Your task to perform on an android device: Check the news Image 0: 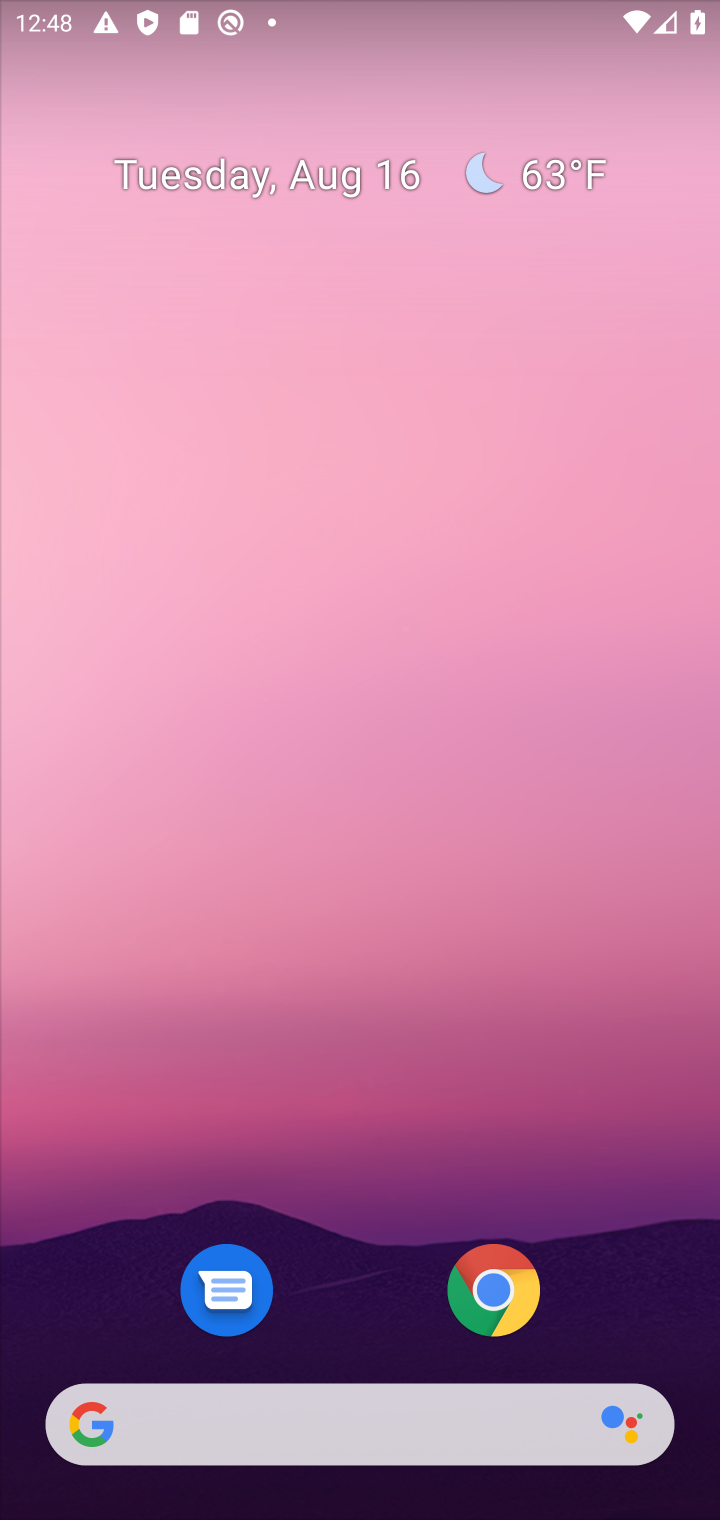
Step 0: click (269, 1438)
Your task to perform on an android device: Check the news Image 1: 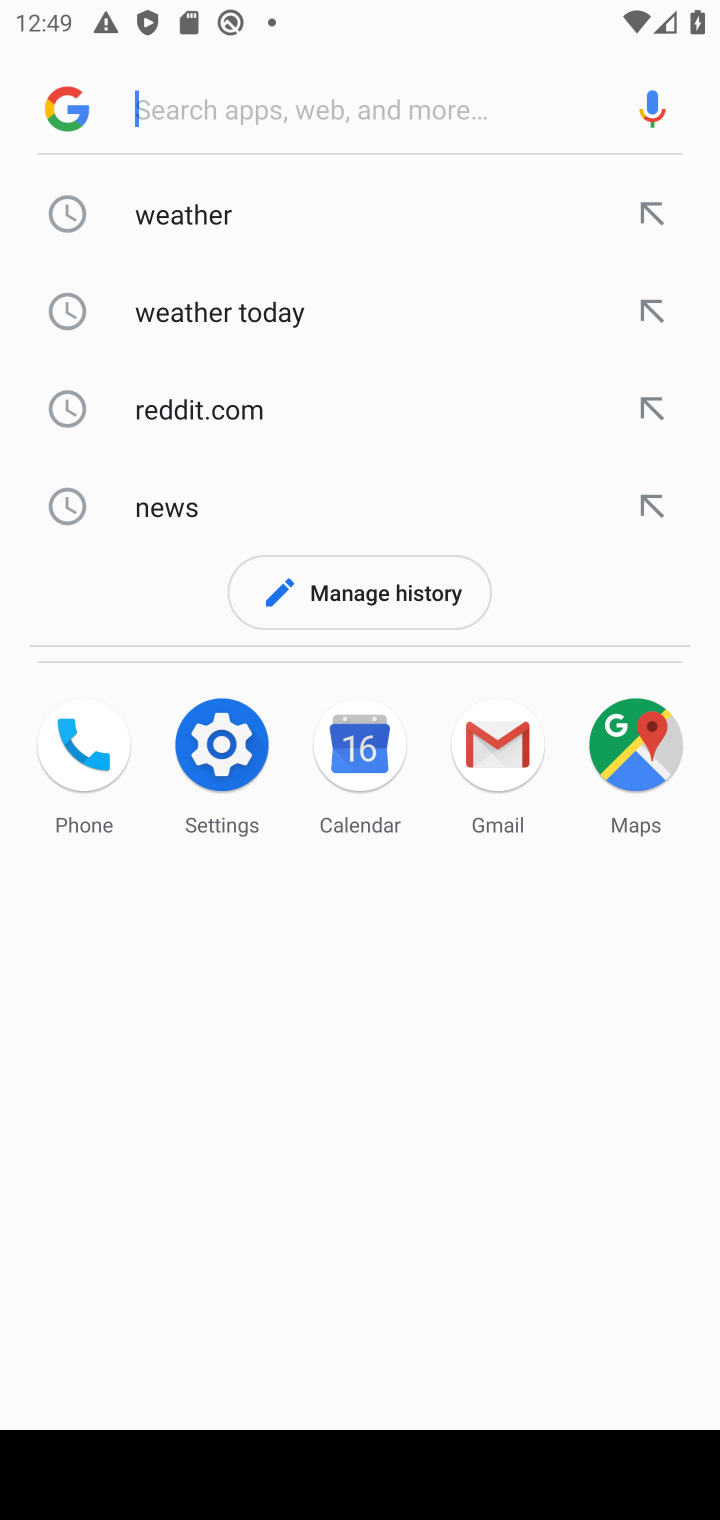
Step 1: click (160, 488)
Your task to perform on an android device: Check the news Image 2: 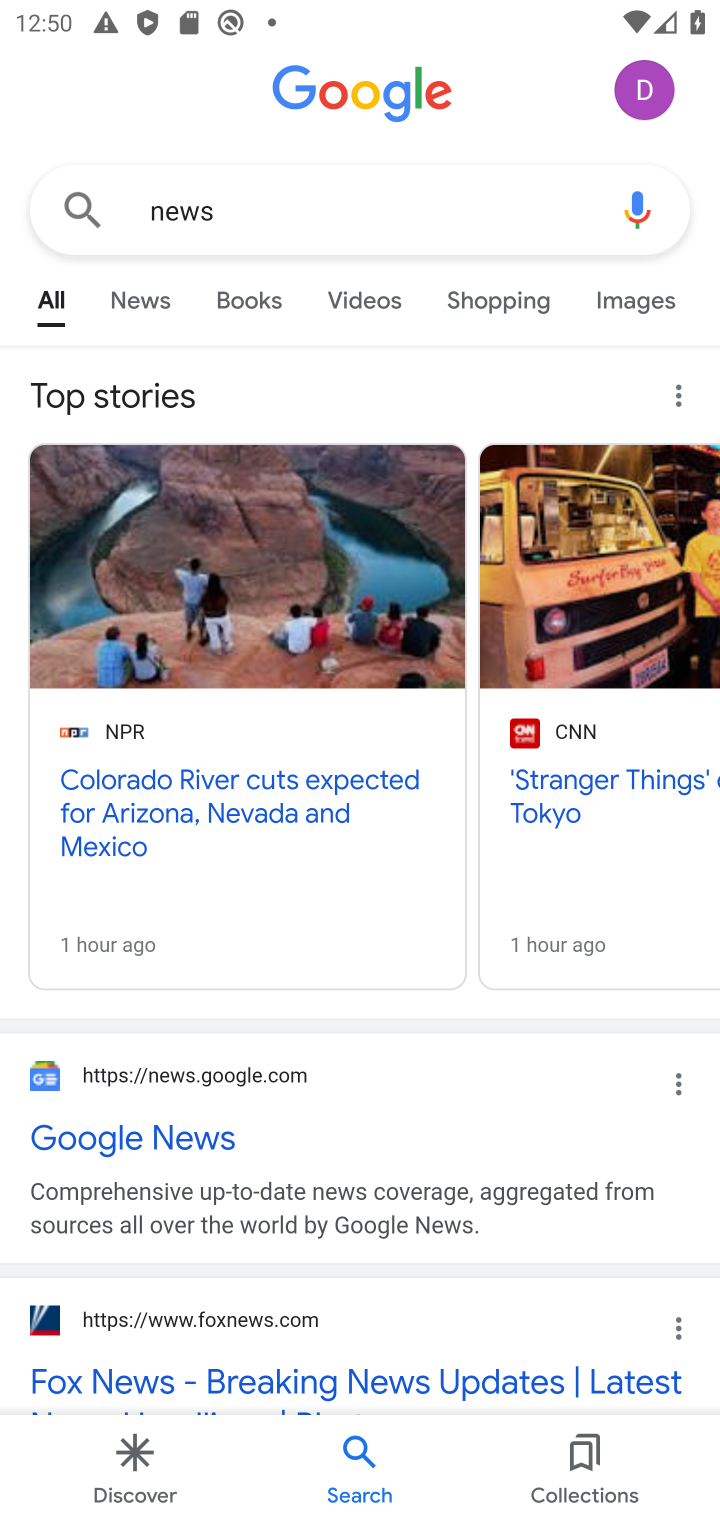
Step 2: task complete